Your task to perform on an android device: check the backup settings in the google photos Image 0: 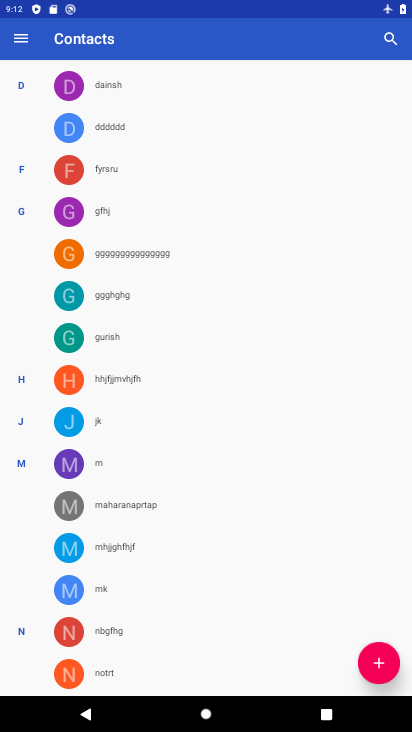
Step 0: press home button
Your task to perform on an android device: check the backup settings in the google photos Image 1: 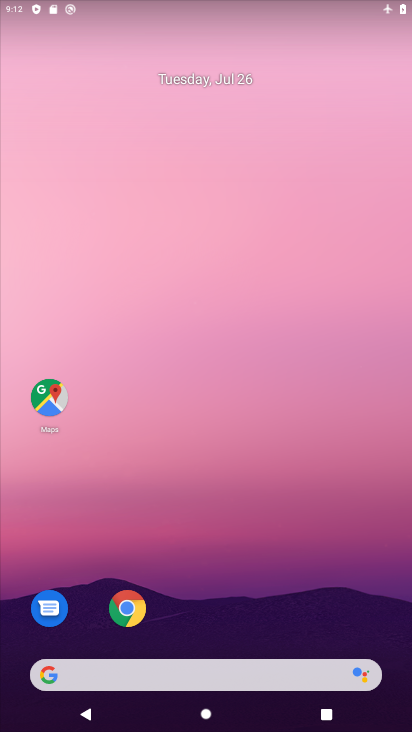
Step 1: drag from (204, 608) to (208, 55)
Your task to perform on an android device: check the backup settings in the google photos Image 2: 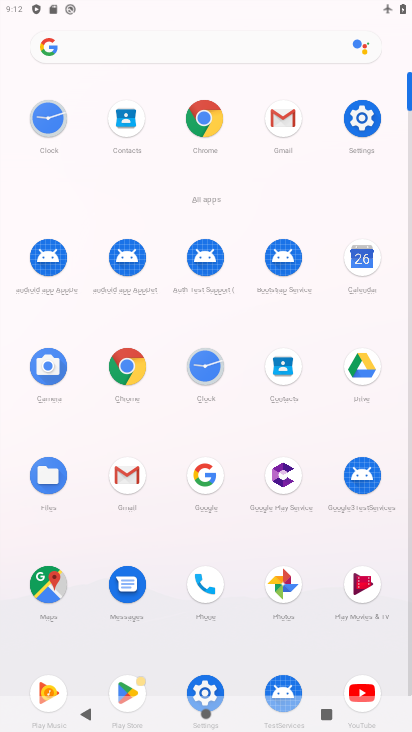
Step 2: click (278, 583)
Your task to perform on an android device: check the backup settings in the google photos Image 3: 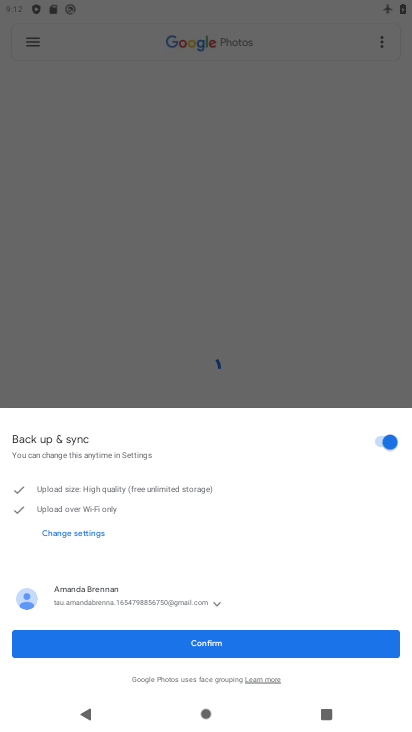
Step 3: click (209, 646)
Your task to perform on an android device: check the backup settings in the google photos Image 4: 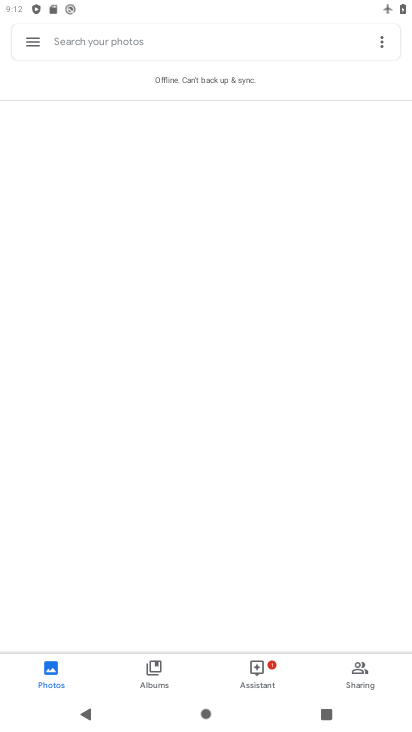
Step 4: click (30, 50)
Your task to perform on an android device: check the backup settings in the google photos Image 5: 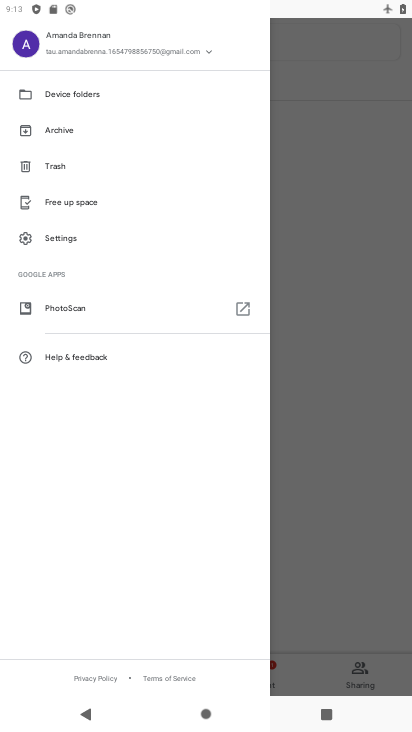
Step 5: click (89, 240)
Your task to perform on an android device: check the backup settings in the google photos Image 6: 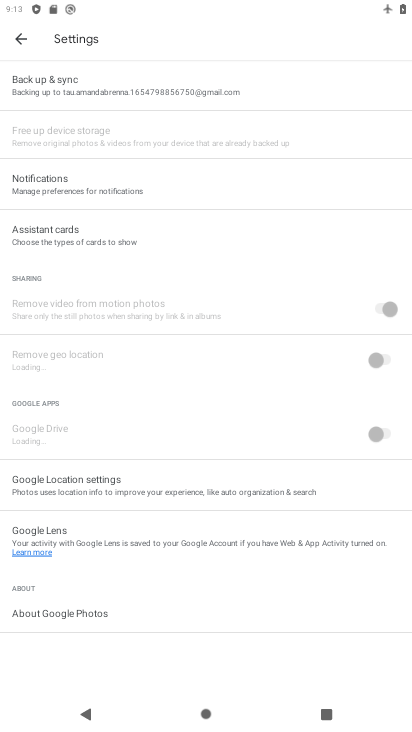
Step 6: click (86, 79)
Your task to perform on an android device: check the backup settings in the google photos Image 7: 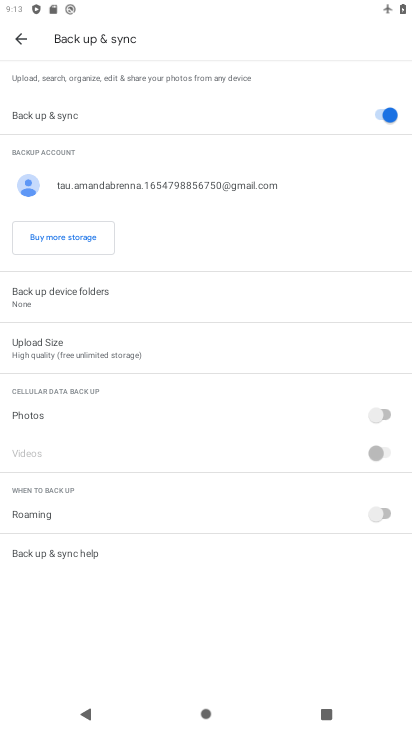
Step 7: task complete